Your task to perform on an android device: manage bookmarks in the chrome app Image 0: 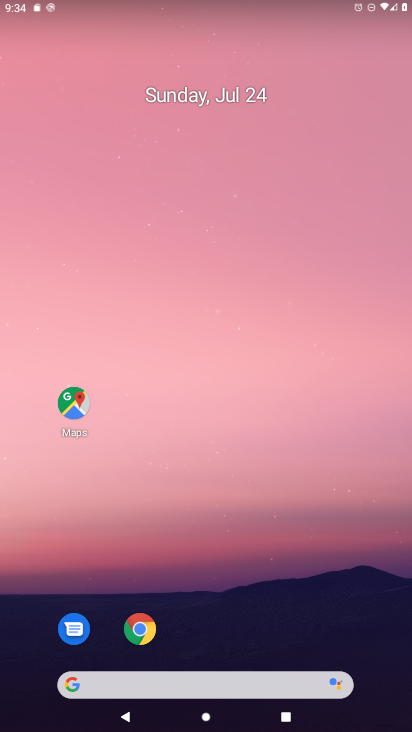
Step 0: drag from (364, 639) to (121, 26)
Your task to perform on an android device: manage bookmarks in the chrome app Image 1: 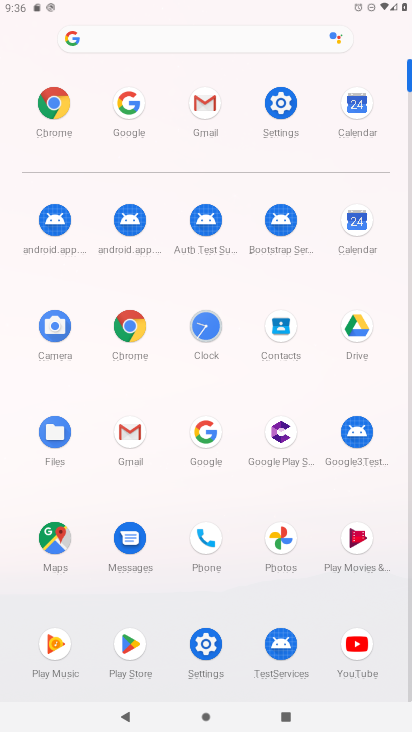
Step 1: click (129, 333)
Your task to perform on an android device: manage bookmarks in the chrome app Image 2: 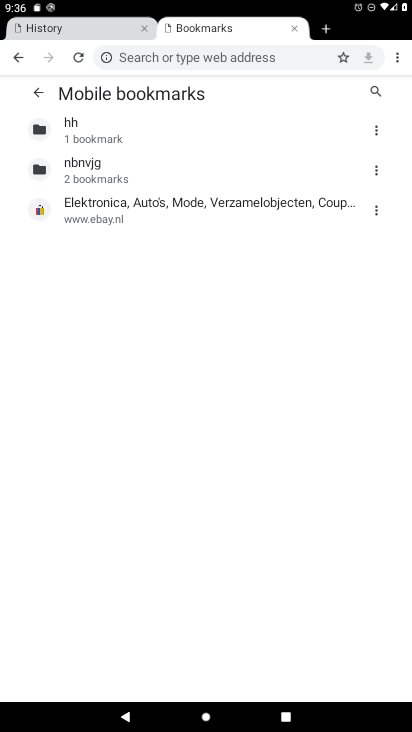
Step 2: task complete